Your task to perform on an android device: What's the weather today? Image 0: 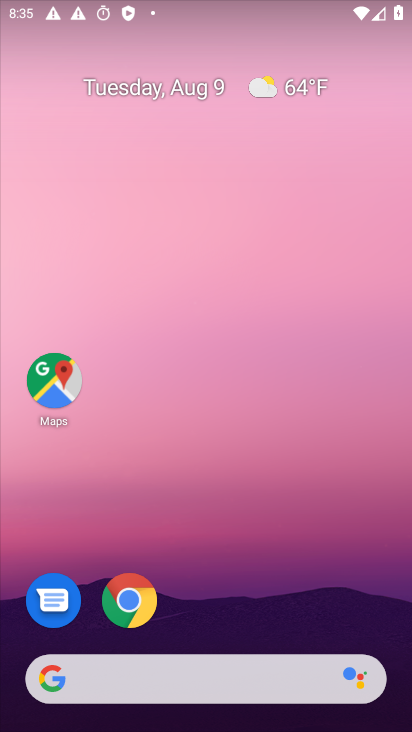
Step 0: press home button
Your task to perform on an android device: What's the weather today? Image 1: 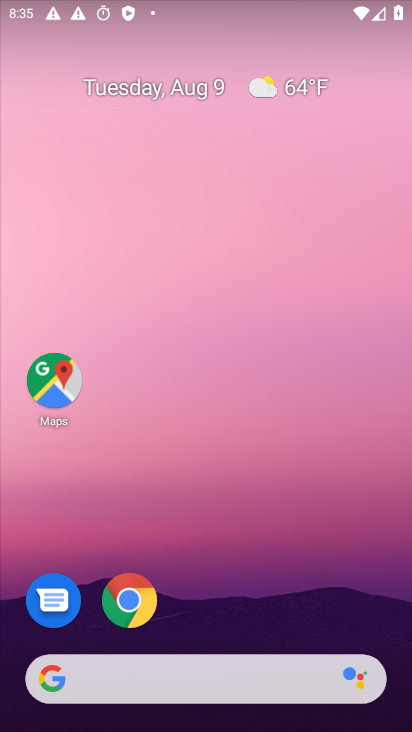
Step 1: click (53, 685)
Your task to perform on an android device: What's the weather today? Image 2: 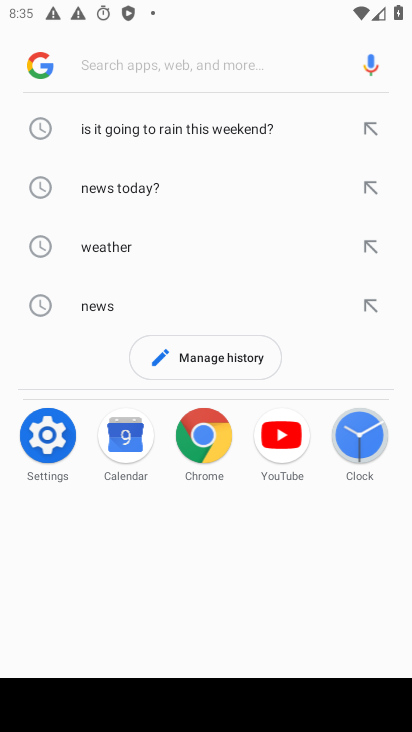
Step 2: type "weather today?"
Your task to perform on an android device: What's the weather today? Image 3: 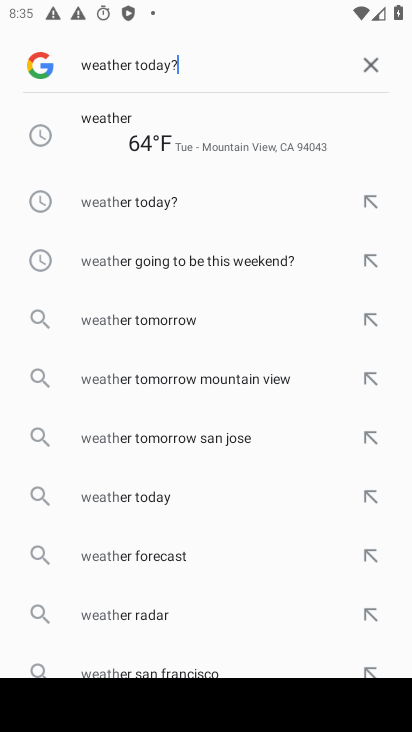
Step 3: press enter
Your task to perform on an android device: What's the weather today? Image 4: 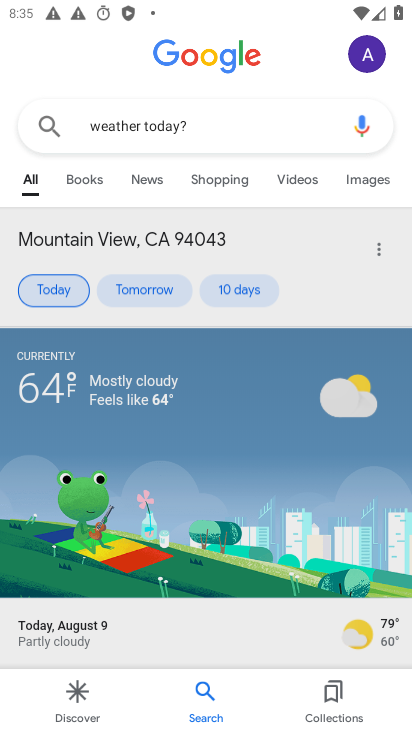
Step 4: task complete